Your task to perform on an android device: Play the last video I watched on Youtube Image 0: 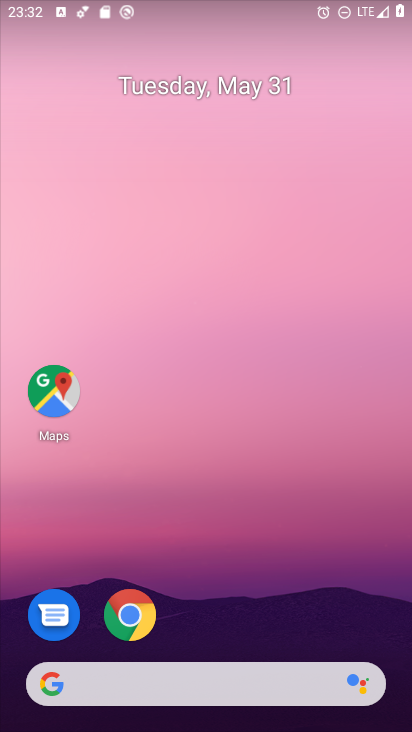
Step 0: drag from (385, 637) to (303, 50)
Your task to perform on an android device: Play the last video I watched on Youtube Image 1: 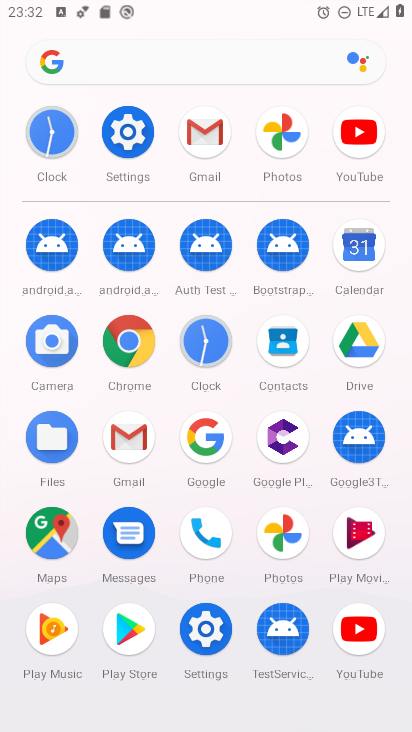
Step 1: click (358, 628)
Your task to perform on an android device: Play the last video I watched on Youtube Image 2: 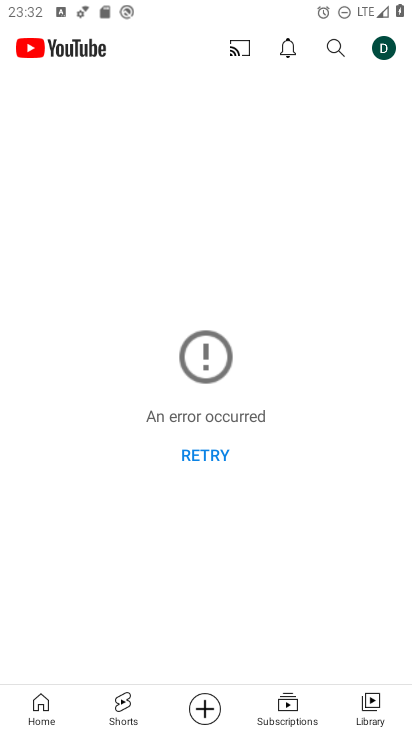
Step 2: click (372, 704)
Your task to perform on an android device: Play the last video I watched on Youtube Image 3: 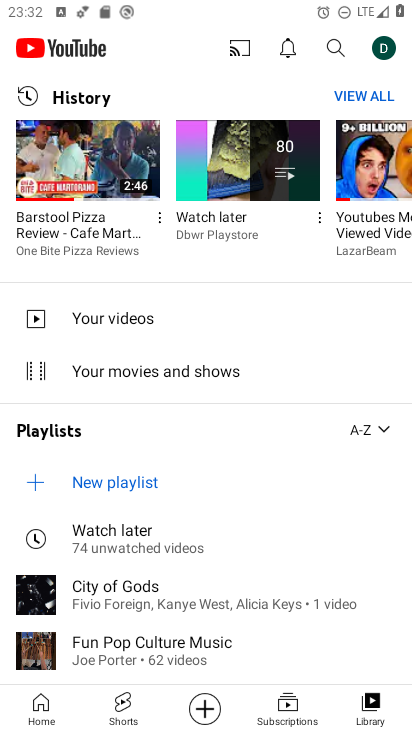
Step 3: click (85, 152)
Your task to perform on an android device: Play the last video I watched on Youtube Image 4: 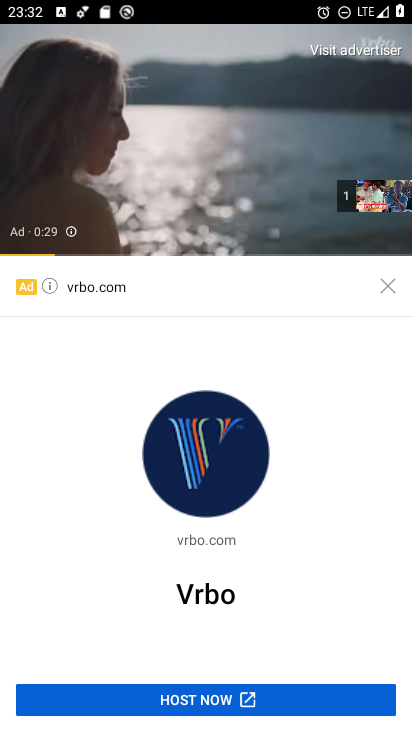
Step 4: click (388, 286)
Your task to perform on an android device: Play the last video I watched on Youtube Image 5: 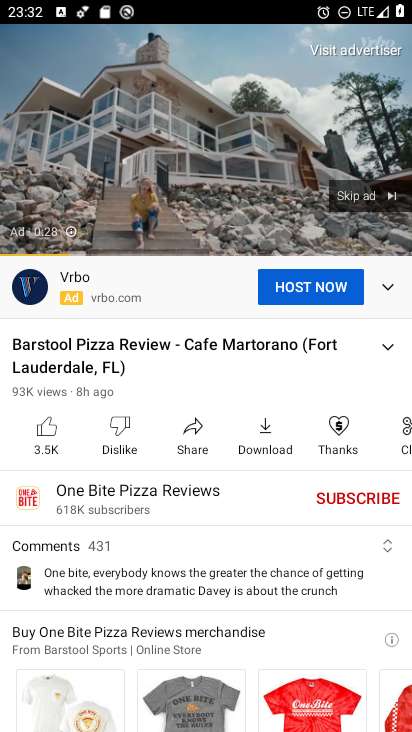
Step 5: click (372, 196)
Your task to perform on an android device: Play the last video I watched on Youtube Image 6: 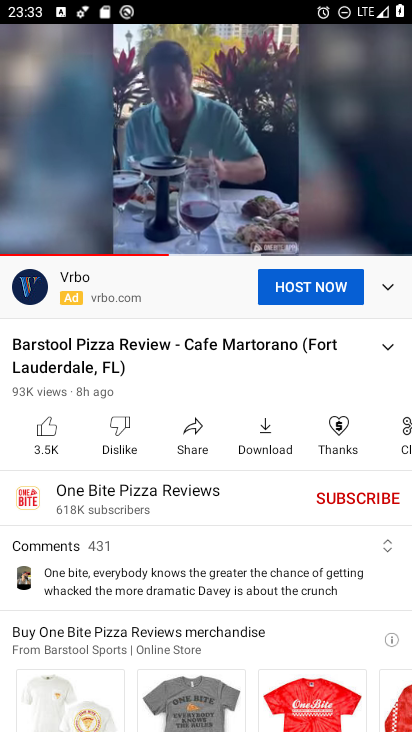
Step 6: click (209, 133)
Your task to perform on an android device: Play the last video I watched on Youtube Image 7: 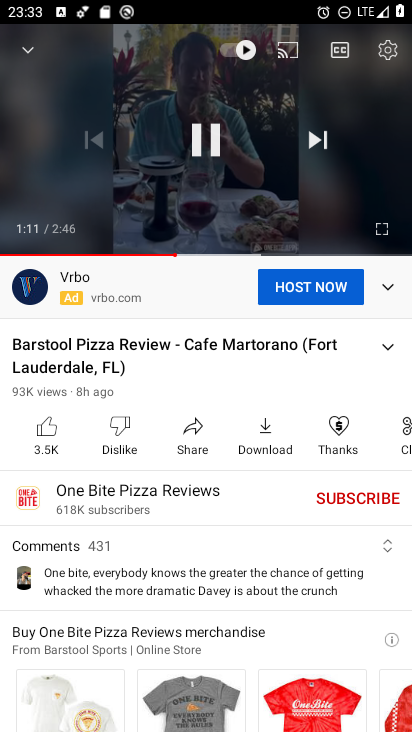
Step 7: click (209, 133)
Your task to perform on an android device: Play the last video I watched on Youtube Image 8: 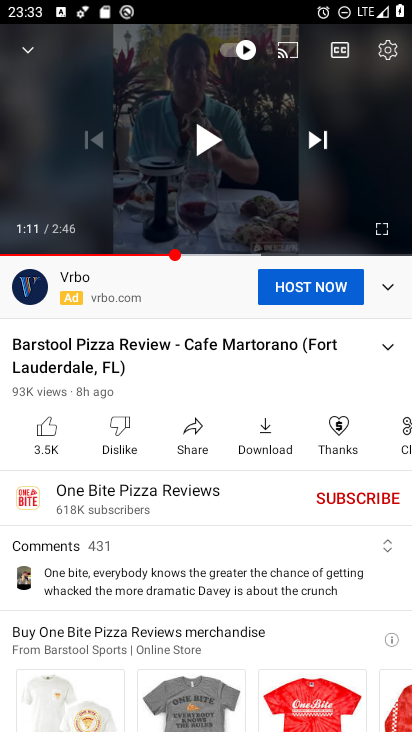
Step 8: task complete